Your task to perform on an android device: Is it going to rain this weekend? Image 0: 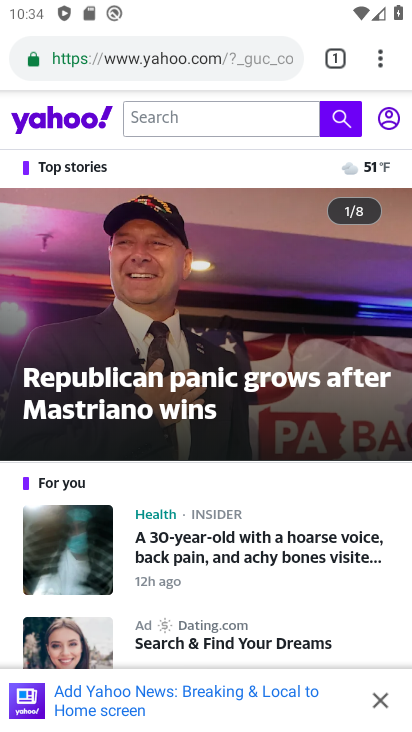
Step 0: press home button
Your task to perform on an android device: Is it going to rain this weekend? Image 1: 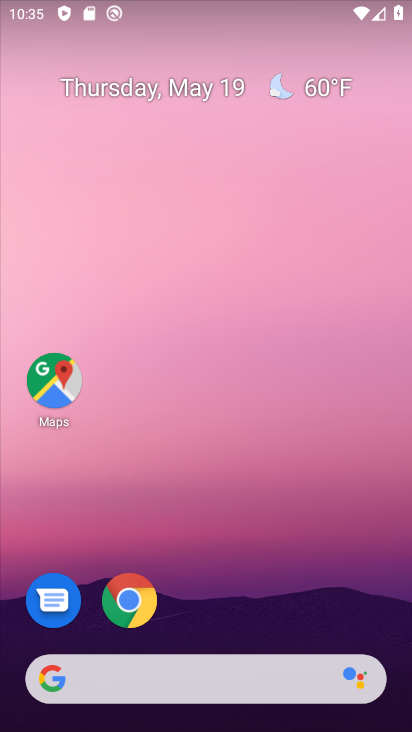
Step 1: click (274, 685)
Your task to perform on an android device: Is it going to rain this weekend? Image 2: 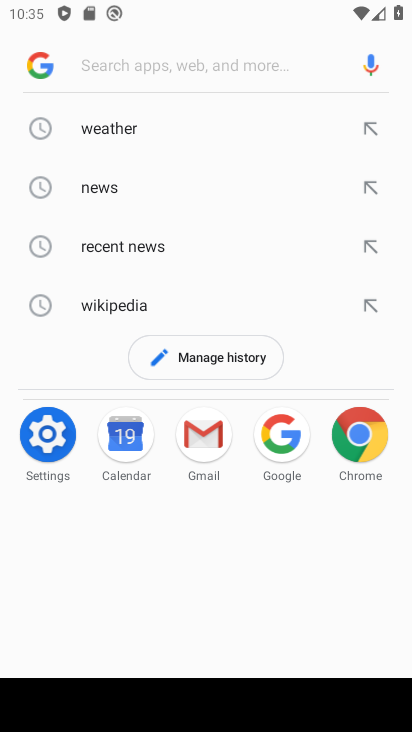
Step 2: click (148, 133)
Your task to perform on an android device: Is it going to rain this weekend? Image 3: 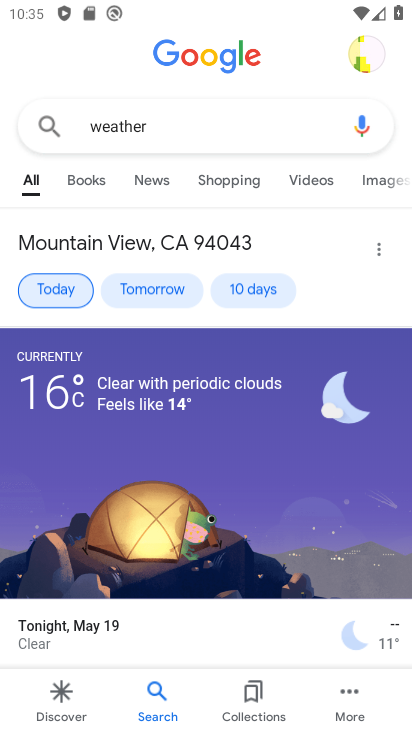
Step 3: click (258, 296)
Your task to perform on an android device: Is it going to rain this weekend? Image 4: 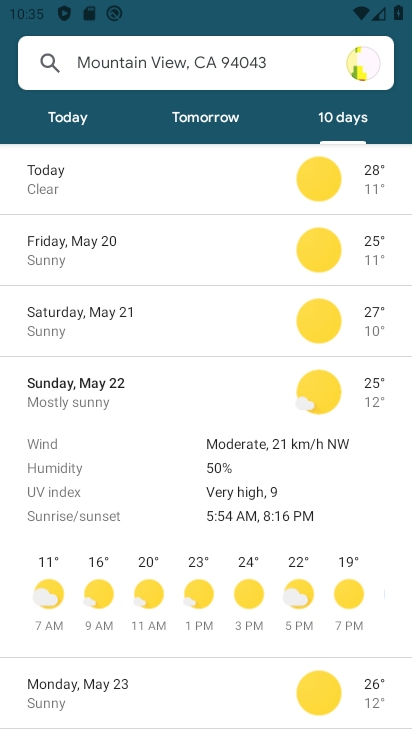
Step 4: task complete